Your task to perform on an android device: Go to wifi settings Image 0: 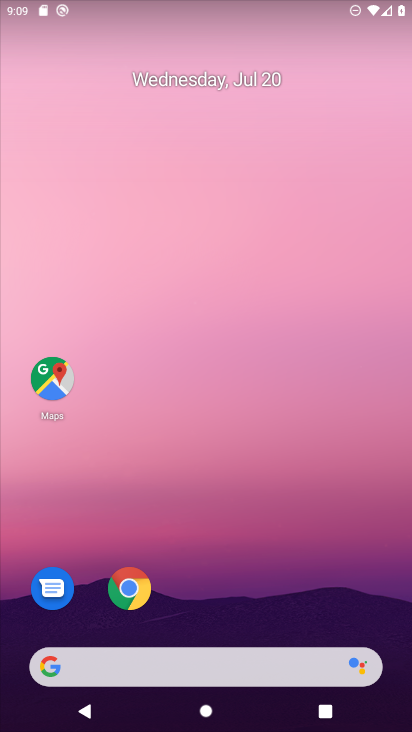
Step 0: drag from (130, 10) to (153, 463)
Your task to perform on an android device: Go to wifi settings Image 1: 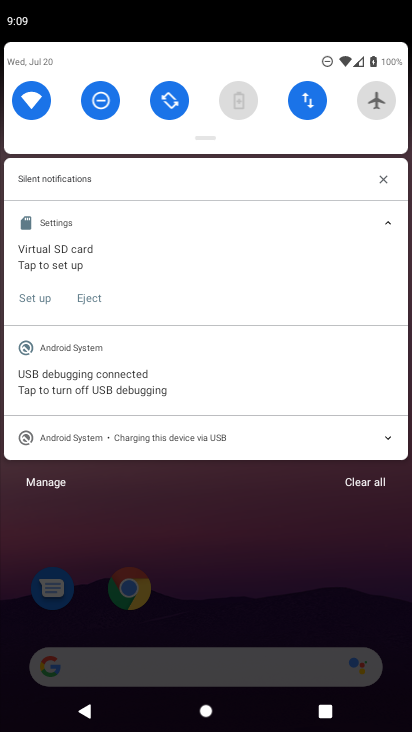
Step 1: click (46, 104)
Your task to perform on an android device: Go to wifi settings Image 2: 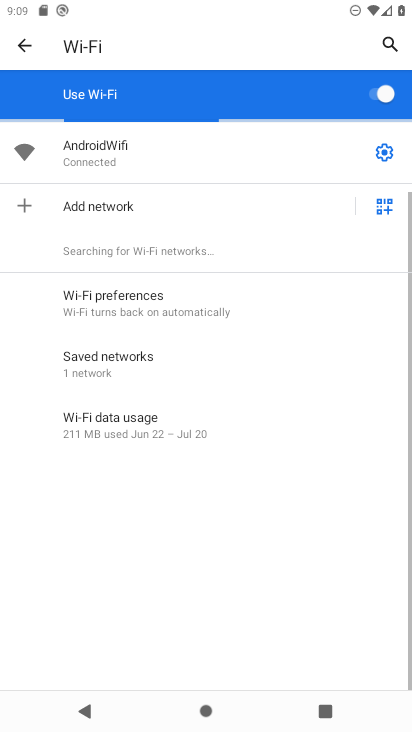
Step 2: task complete